Your task to perform on an android device: Search for Italian restaurants on Maps Image 0: 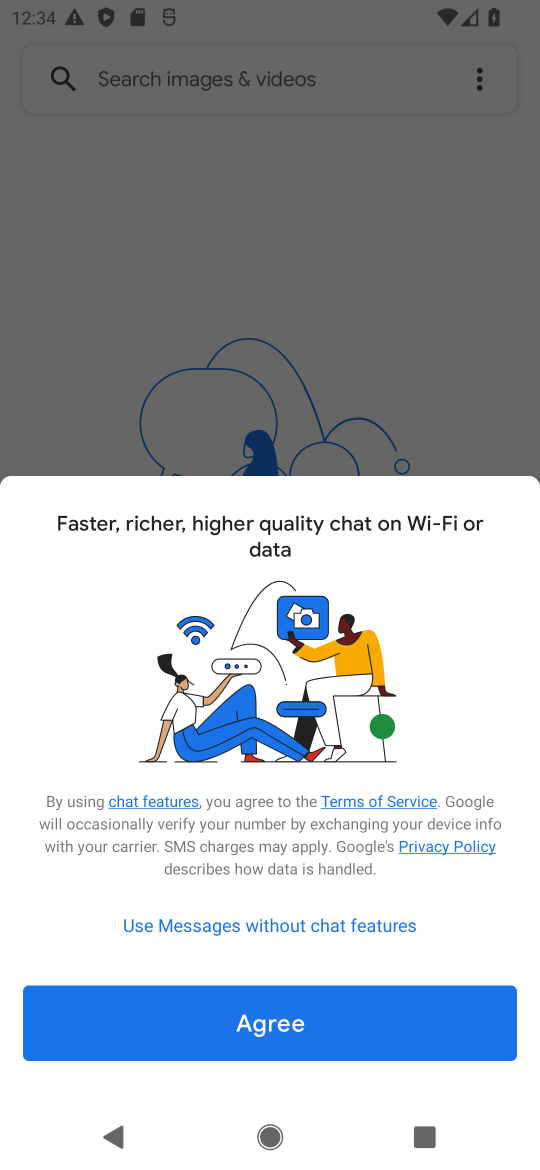
Step 0: press back button
Your task to perform on an android device: Search for Italian restaurants on Maps Image 1: 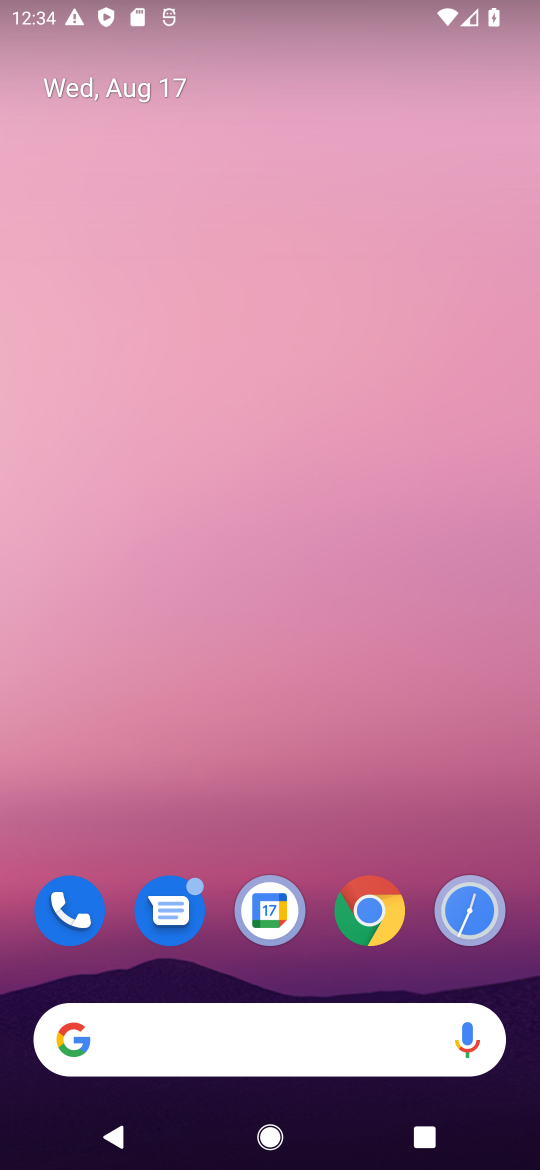
Step 1: drag from (271, 986) to (374, 13)
Your task to perform on an android device: Search for Italian restaurants on Maps Image 2: 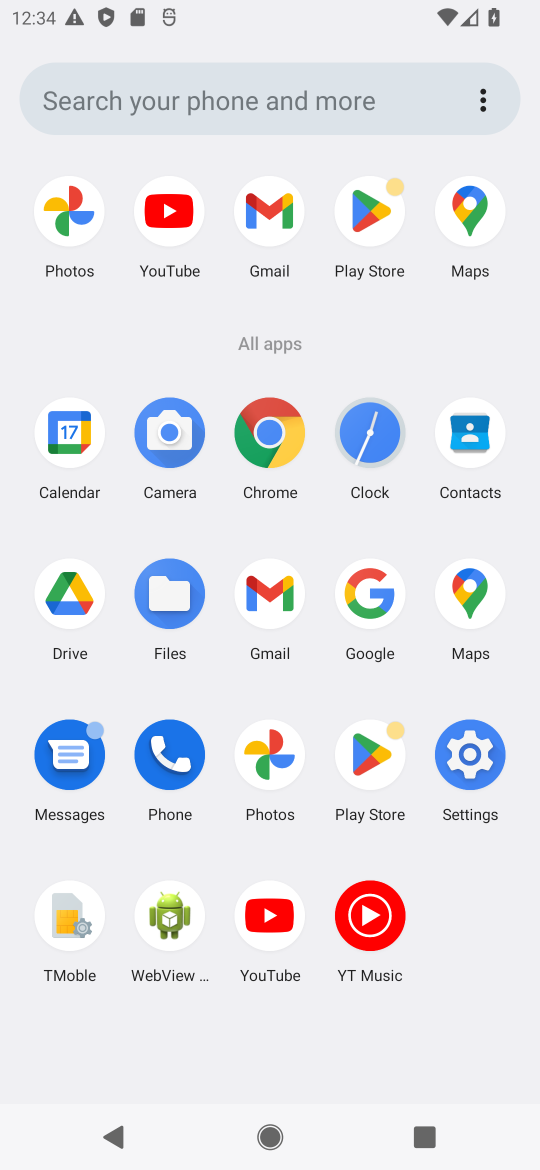
Step 2: click (470, 596)
Your task to perform on an android device: Search for Italian restaurants on Maps Image 3: 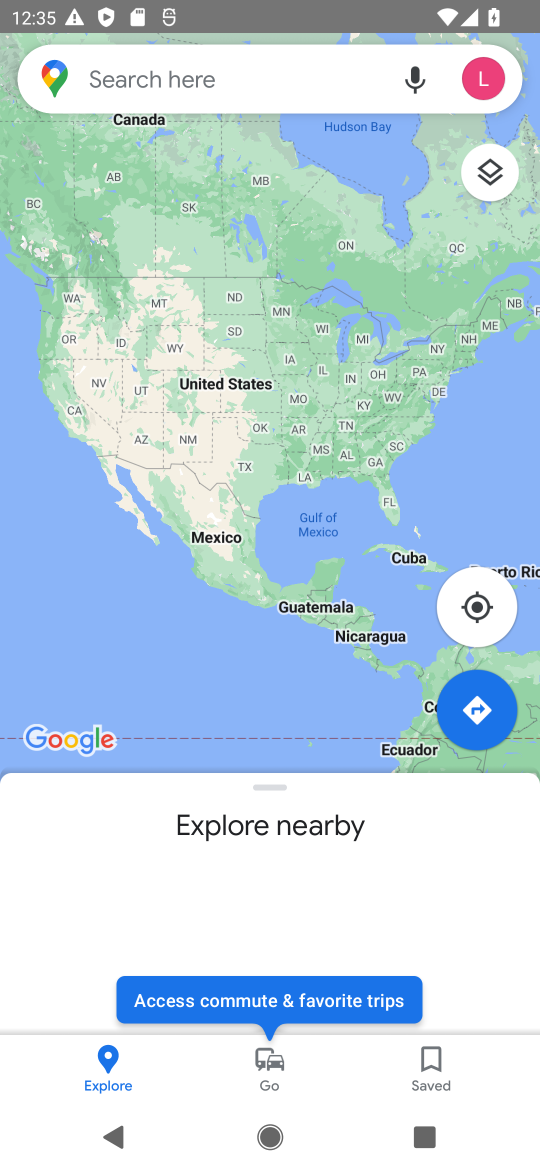
Step 3: click (184, 101)
Your task to perform on an android device: Search for Italian restaurants on Maps Image 4: 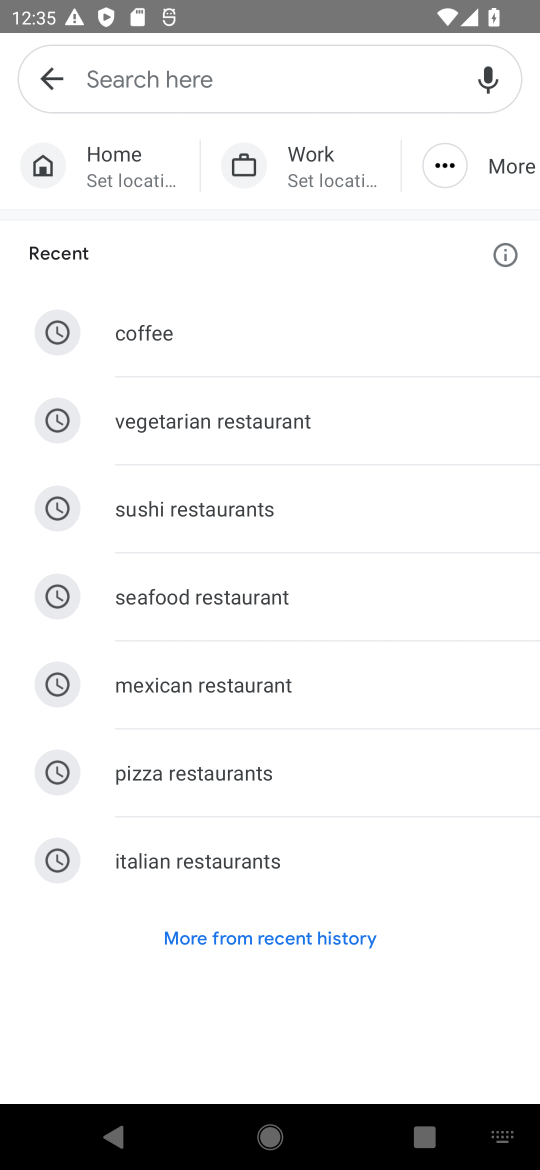
Step 4: click (168, 862)
Your task to perform on an android device: Search for Italian restaurants on Maps Image 5: 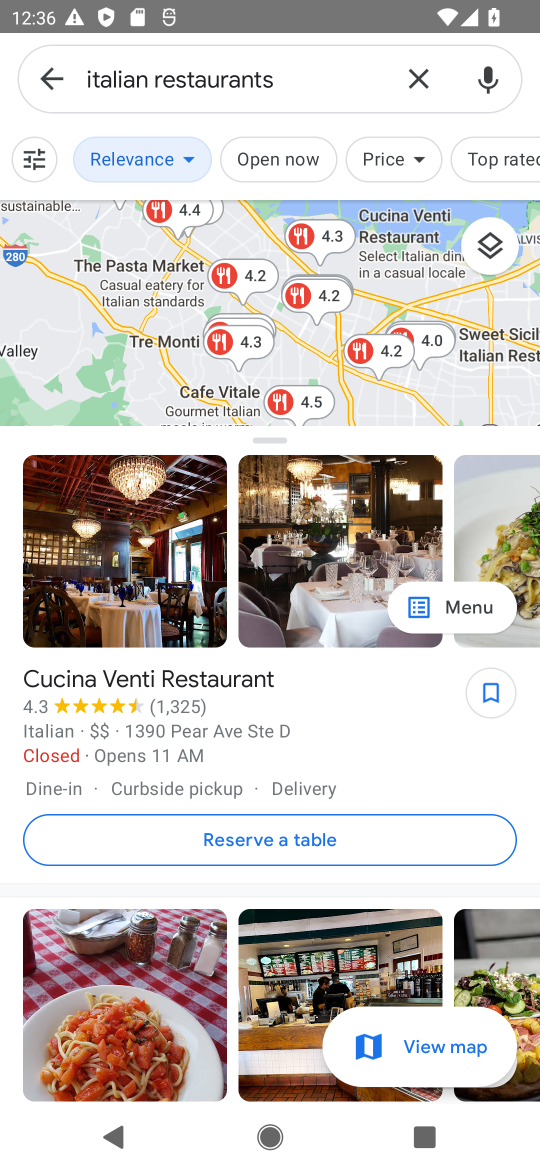
Step 5: task complete